Your task to perform on an android device: Go to Google Image 0: 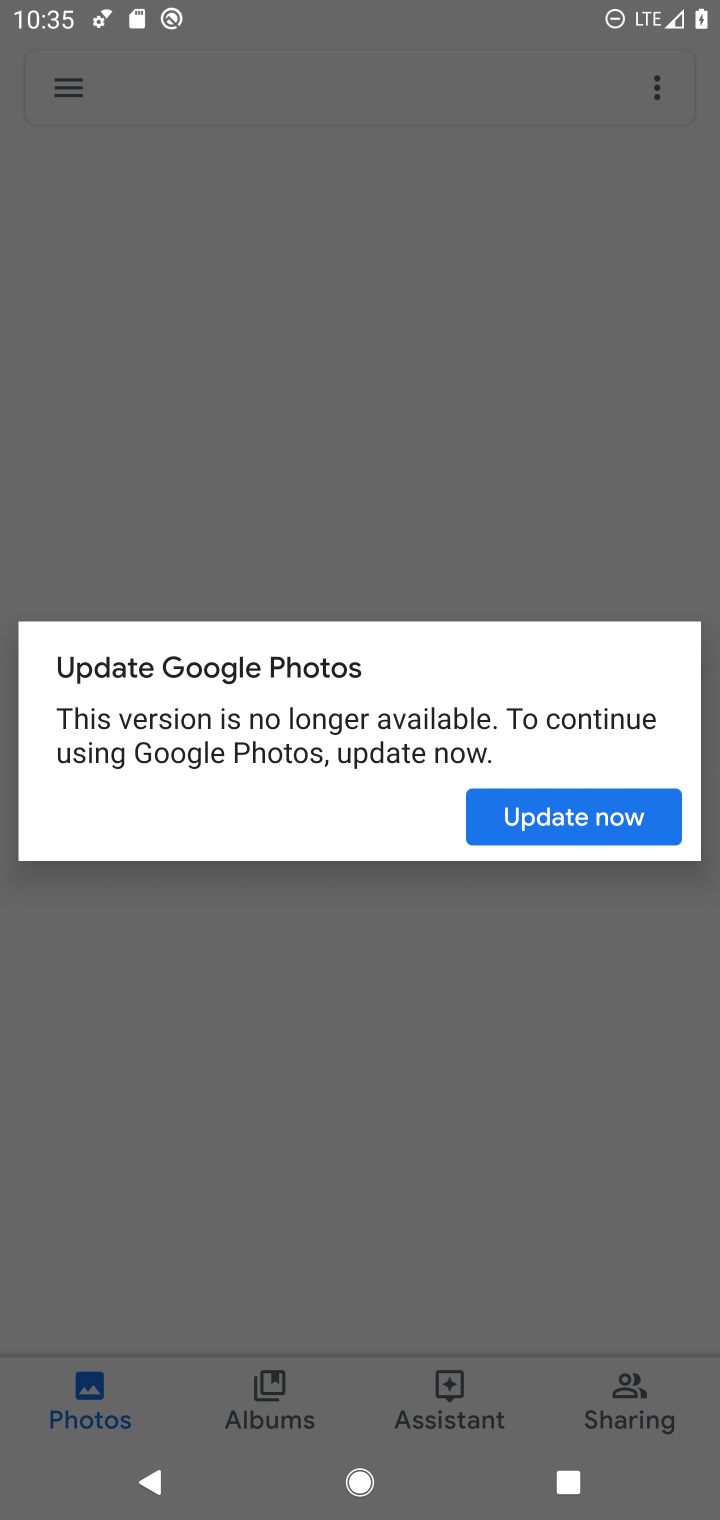
Step 0: press home button
Your task to perform on an android device: Go to Google Image 1: 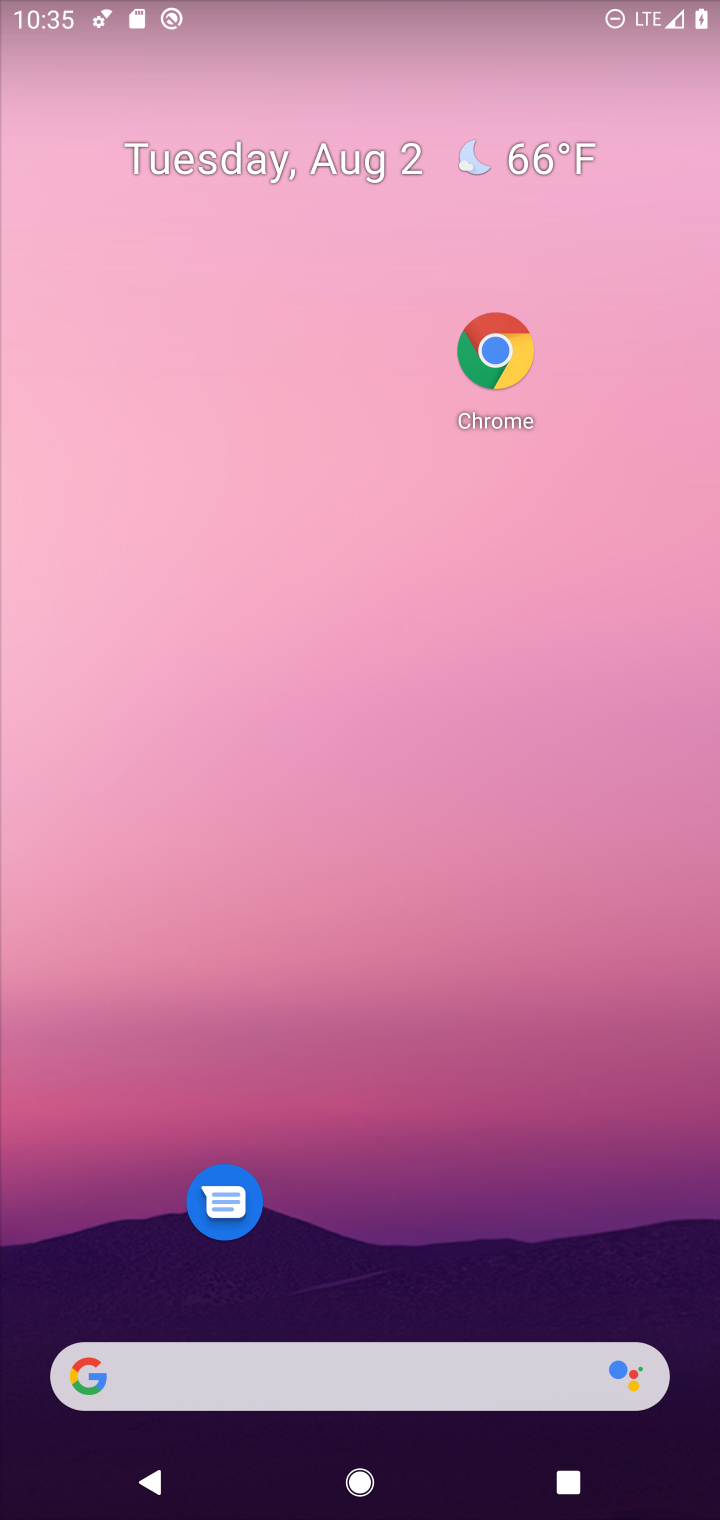
Step 1: drag from (391, 1257) to (422, 186)
Your task to perform on an android device: Go to Google Image 2: 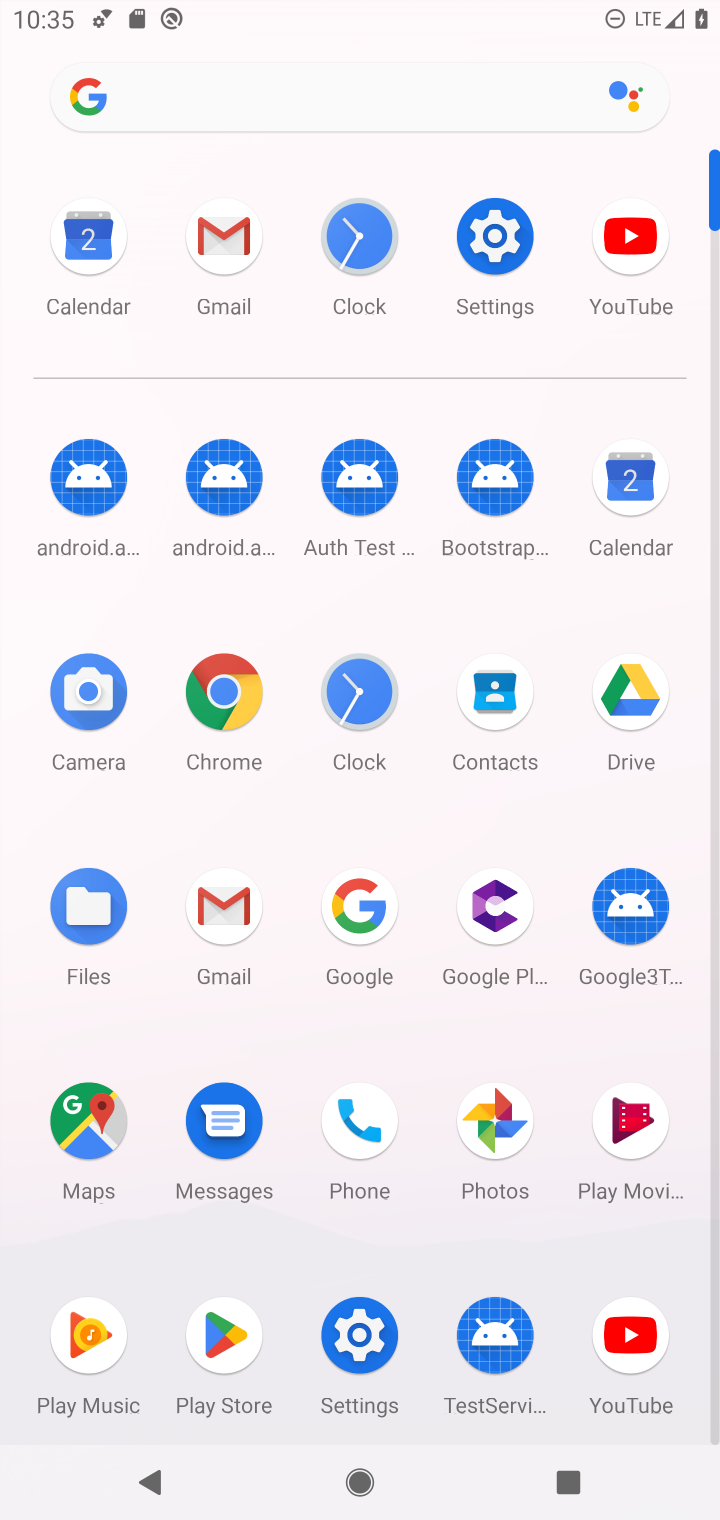
Step 2: click (364, 919)
Your task to perform on an android device: Go to Google Image 3: 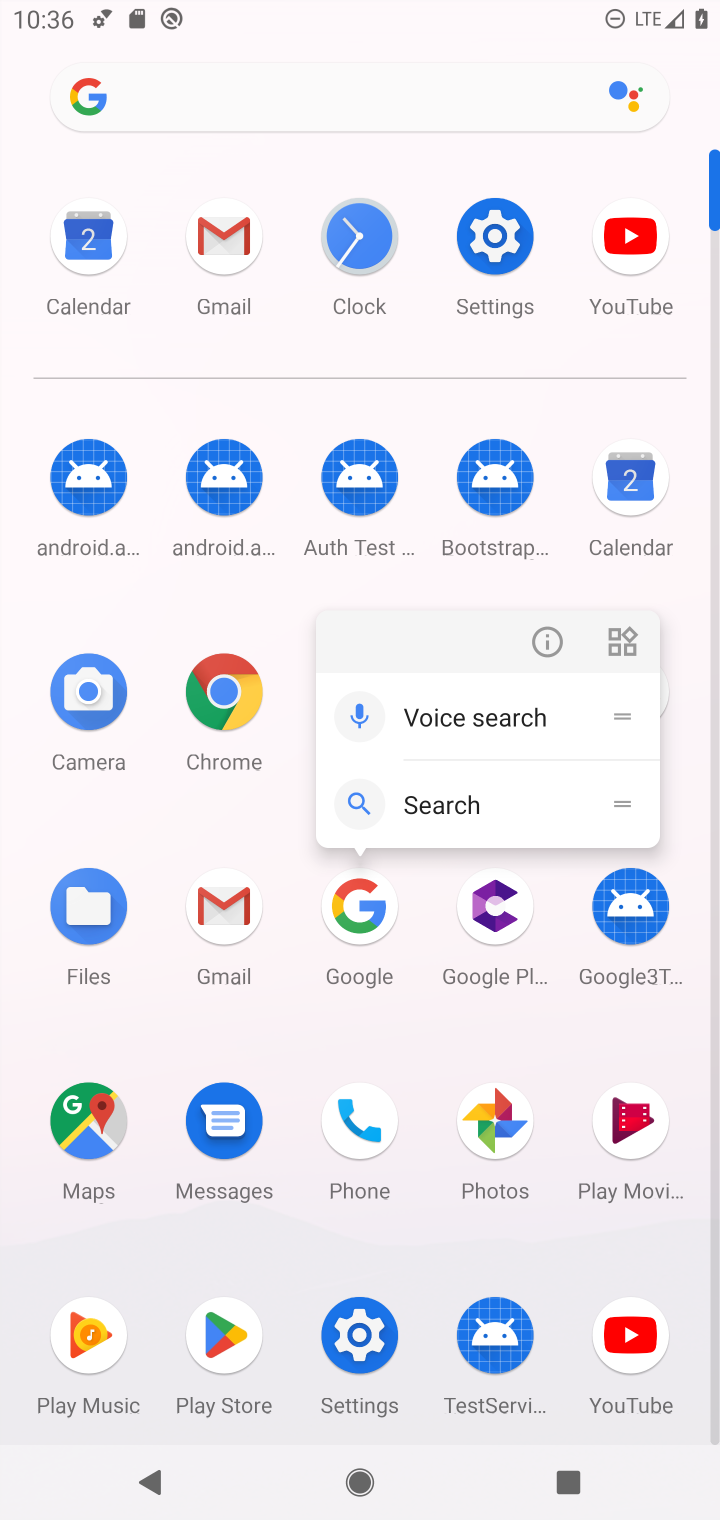
Step 3: click (354, 927)
Your task to perform on an android device: Go to Google Image 4: 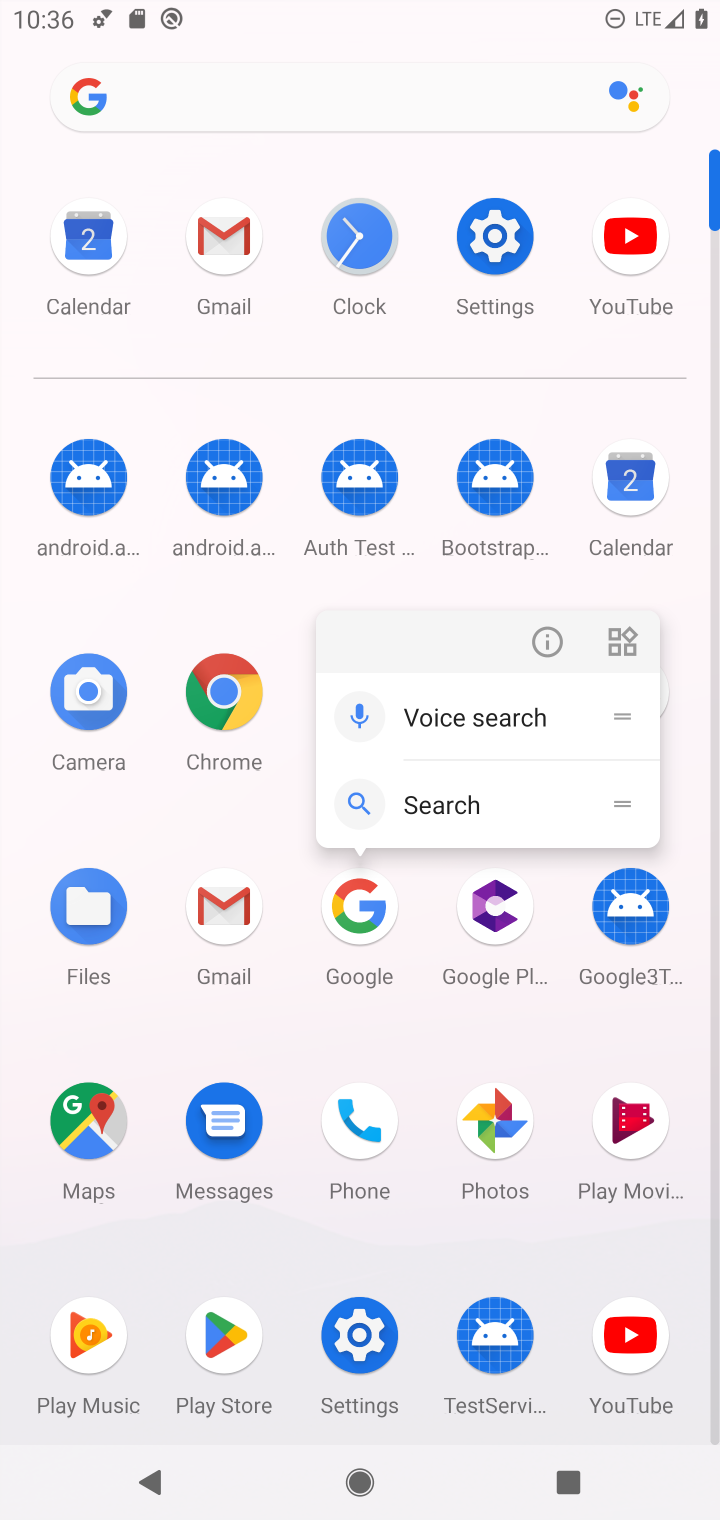
Step 4: click (354, 927)
Your task to perform on an android device: Go to Google Image 5: 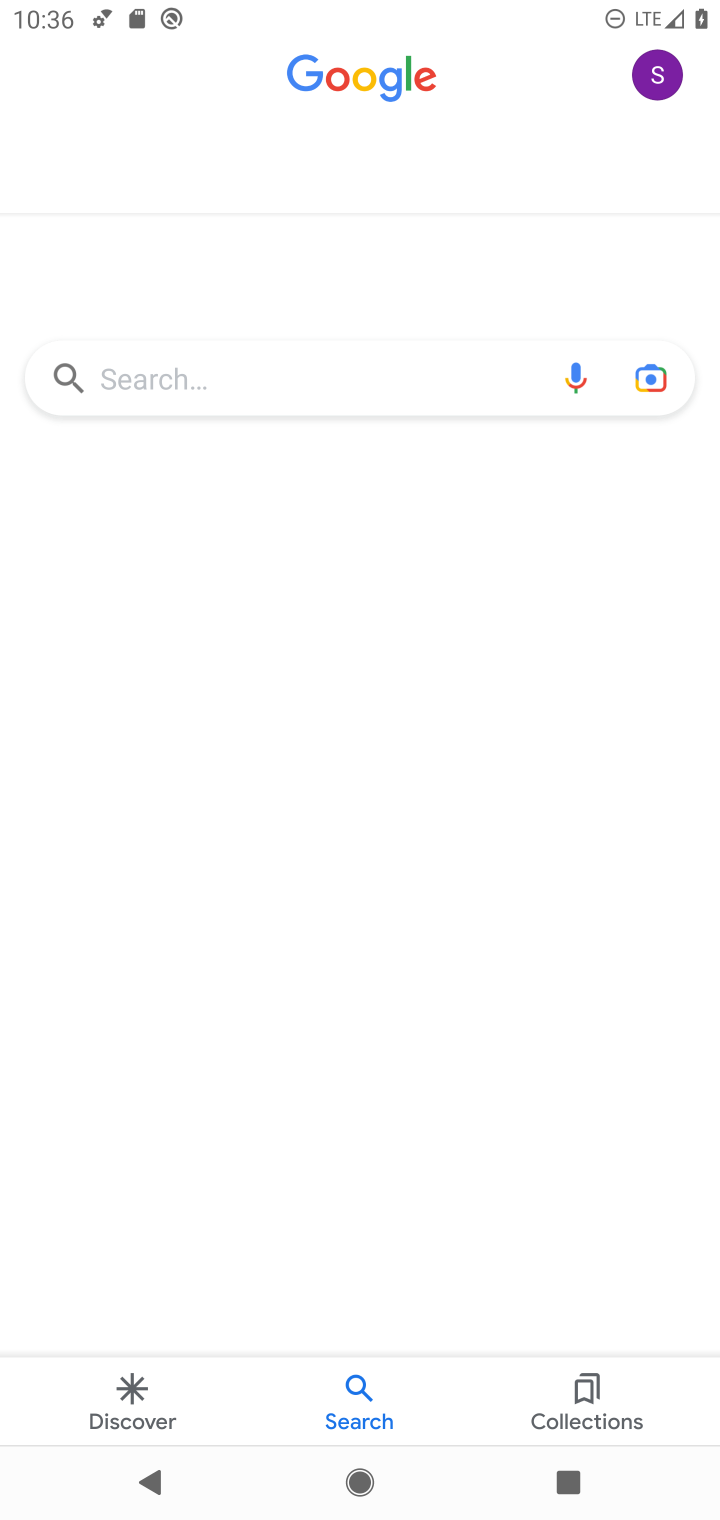
Step 5: task complete